Your task to perform on an android device: manage bookmarks in the chrome app Image 0: 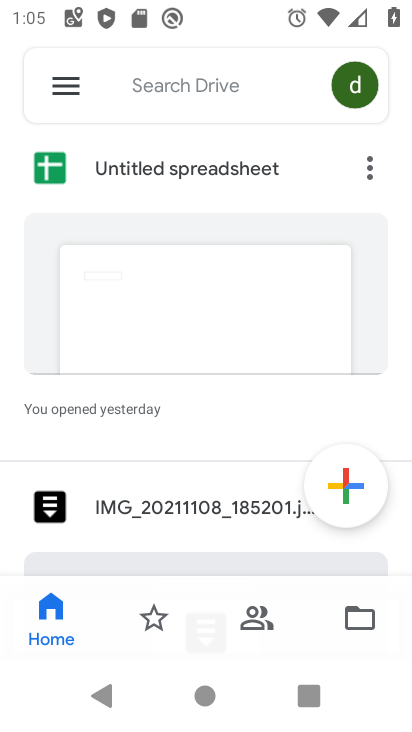
Step 0: task complete